Your task to perform on an android device: Open location settings Image 0: 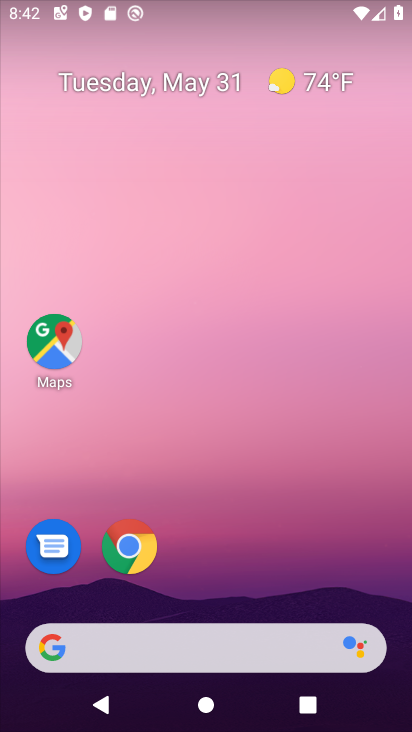
Step 0: drag from (259, 468) to (244, 8)
Your task to perform on an android device: Open location settings Image 1: 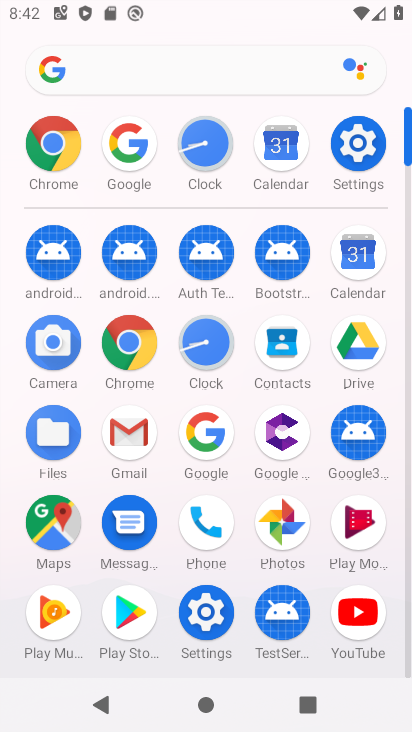
Step 1: click (359, 141)
Your task to perform on an android device: Open location settings Image 2: 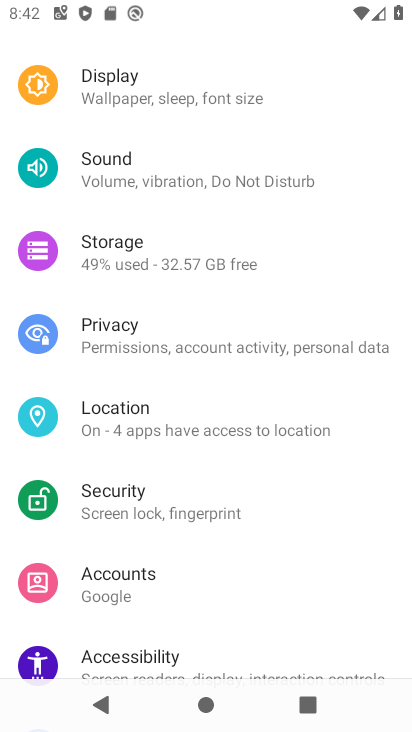
Step 2: click (120, 417)
Your task to perform on an android device: Open location settings Image 3: 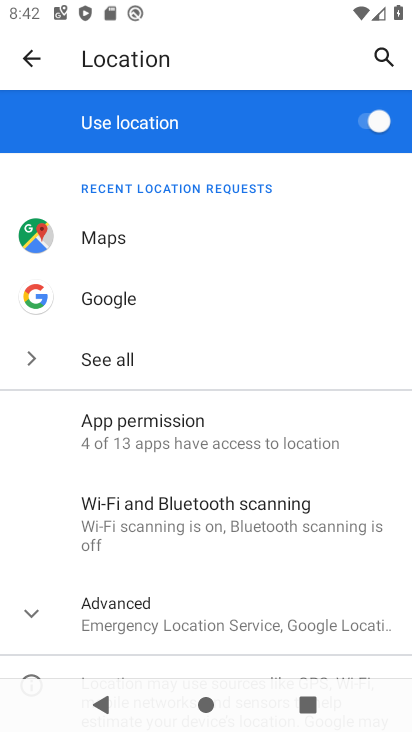
Step 3: task complete